Your task to perform on an android device: toggle improve location accuracy Image 0: 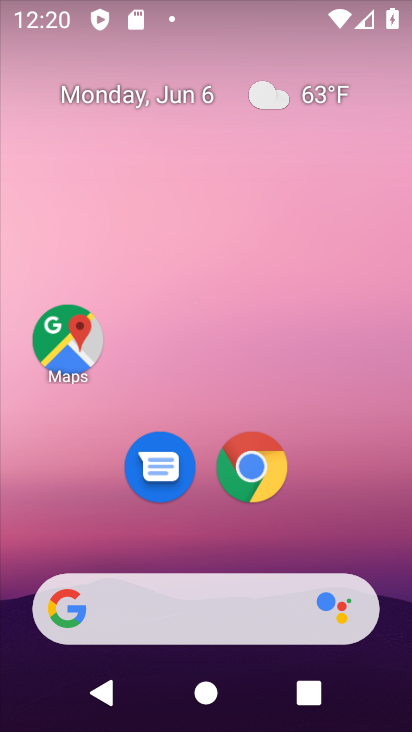
Step 0: drag from (387, 577) to (259, 131)
Your task to perform on an android device: toggle improve location accuracy Image 1: 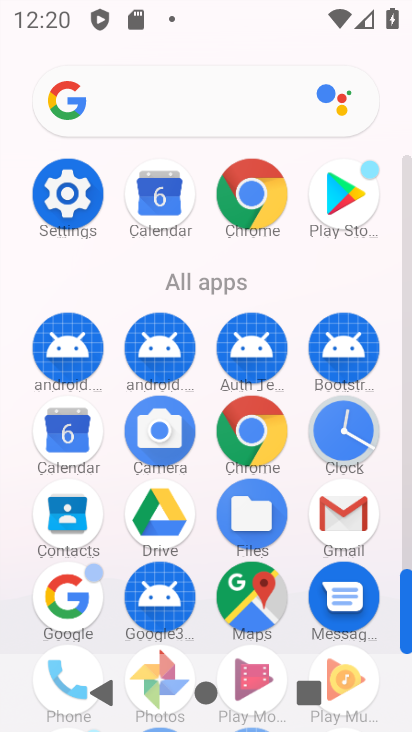
Step 1: click (71, 207)
Your task to perform on an android device: toggle improve location accuracy Image 2: 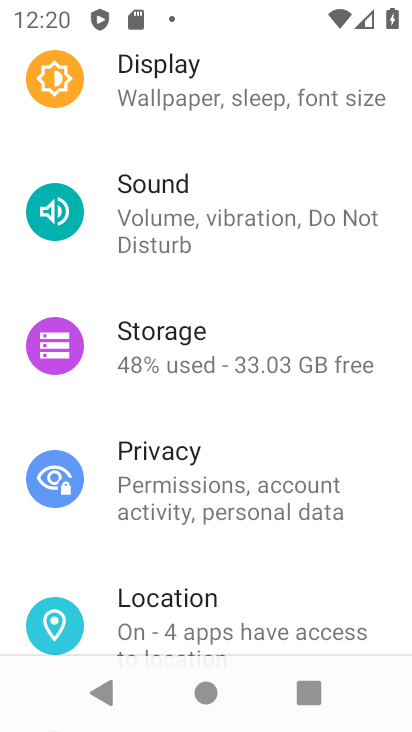
Step 2: click (198, 613)
Your task to perform on an android device: toggle improve location accuracy Image 3: 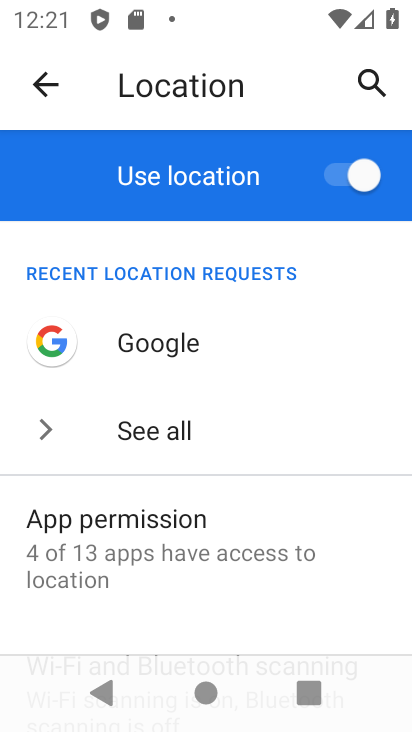
Step 3: drag from (169, 604) to (259, 40)
Your task to perform on an android device: toggle improve location accuracy Image 4: 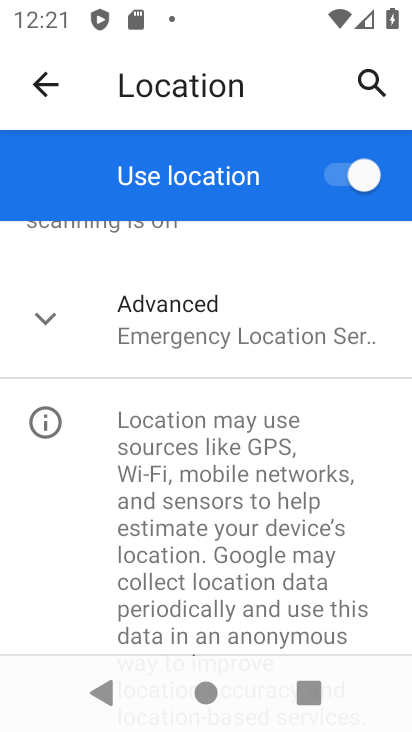
Step 4: click (164, 310)
Your task to perform on an android device: toggle improve location accuracy Image 5: 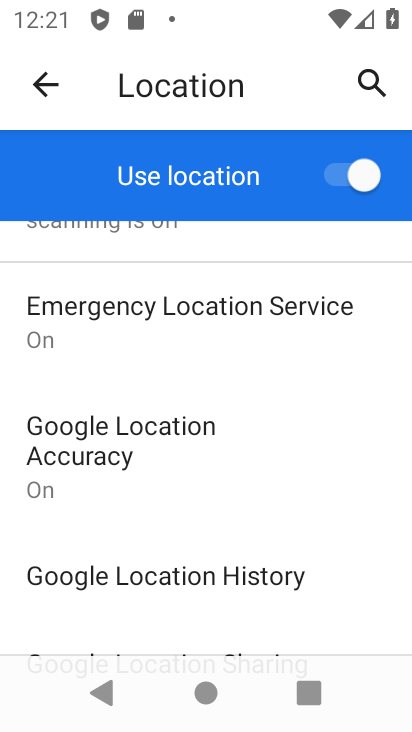
Step 5: click (188, 467)
Your task to perform on an android device: toggle improve location accuracy Image 6: 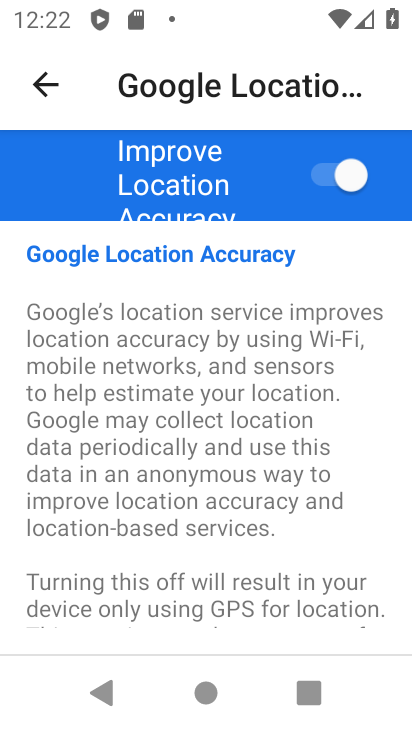
Step 6: click (335, 182)
Your task to perform on an android device: toggle improve location accuracy Image 7: 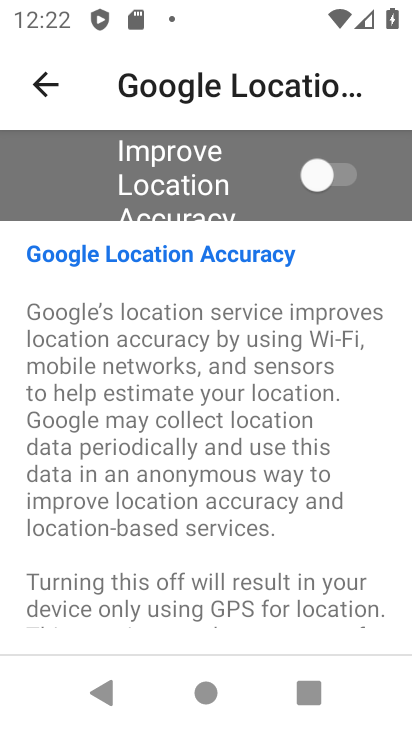
Step 7: task complete